Your task to perform on an android device: Go to Yahoo.com Image 0: 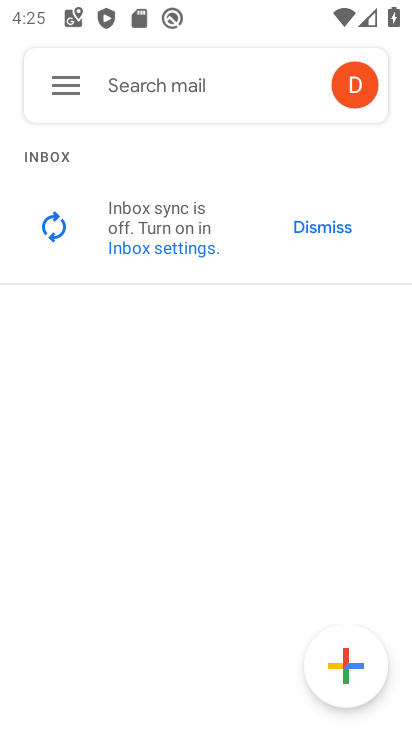
Step 0: press home button
Your task to perform on an android device: Go to Yahoo.com Image 1: 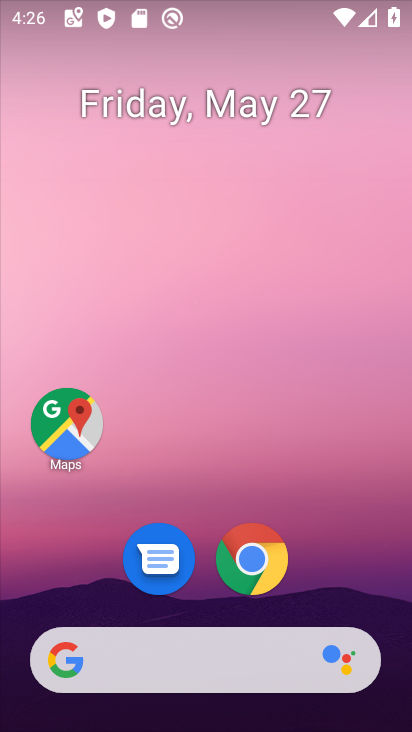
Step 1: click (257, 556)
Your task to perform on an android device: Go to Yahoo.com Image 2: 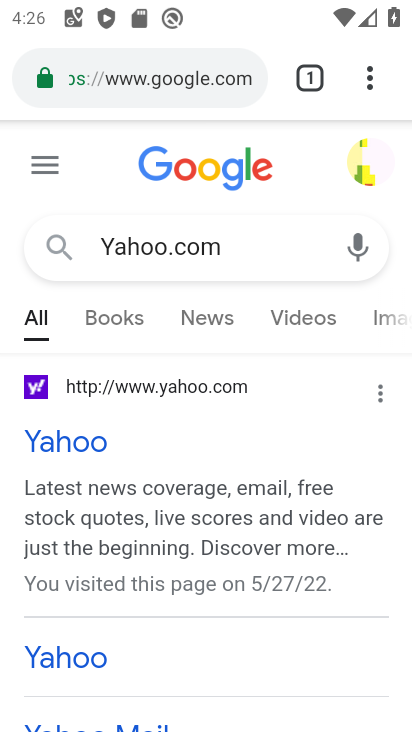
Step 2: task complete